Your task to perform on an android device: Show me popular games on the Play Store Image 0: 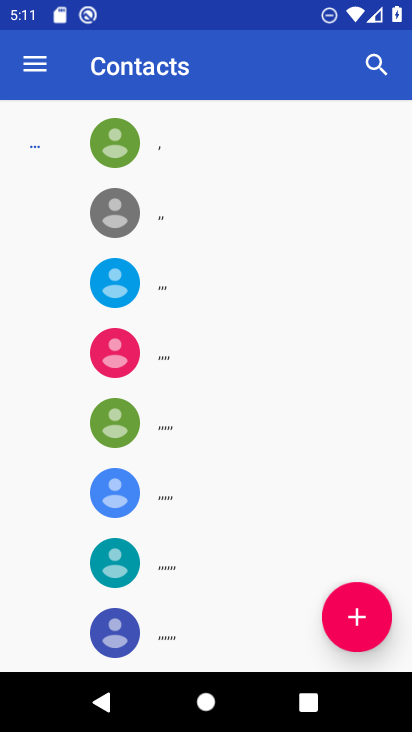
Step 0: press home button
Your task to perform on an android device: Show me popular games on the Play Store Image 1: 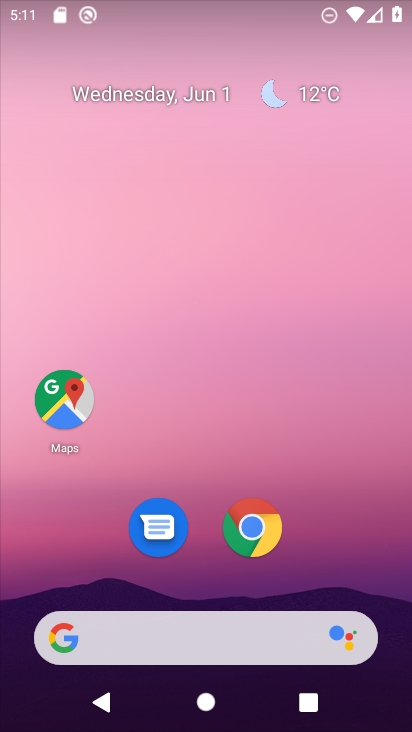
Step 1: drag from (184, 565) to (261, 5)
Your task to perform on an android device: Show me popular games on the Play Store Image 2: 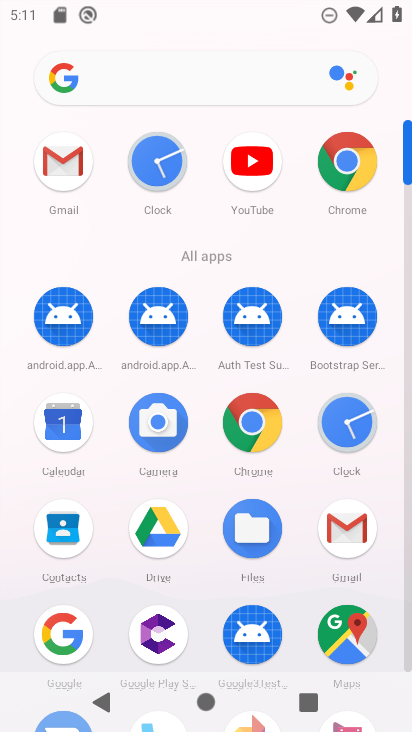
Step 2: drag from (198, 658) to (244, 269)
Your task to perform on an android device: Show me popular games on the Play Store Image 3: 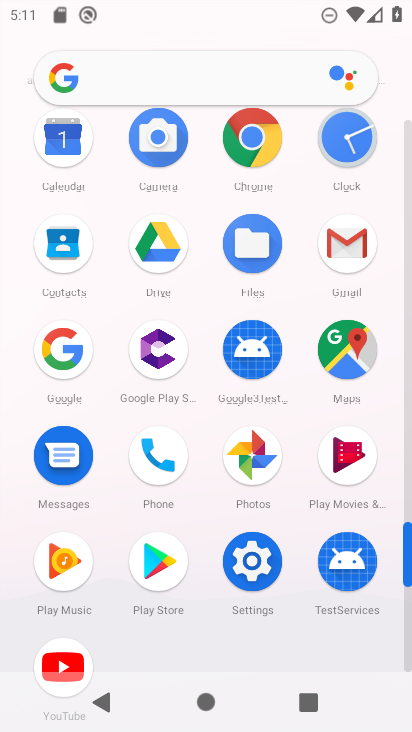
Step 3: click (166, 546)
Your task to perform on an android device: Show me popular games on the Play Store Image 4: 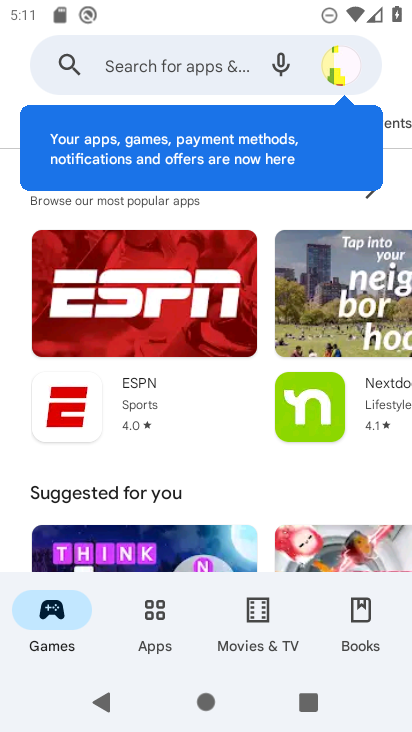
Step 4: click (5, 464)
Your task to perform on an android device: Show me popular games on the Play Store Image 5: 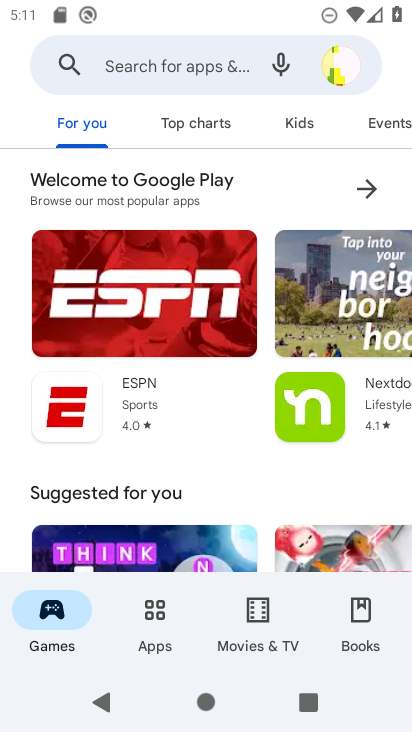
Step 5: click (183, 133)
Your task to perform on an android device: Show me popular games on the Play Store Image 6: 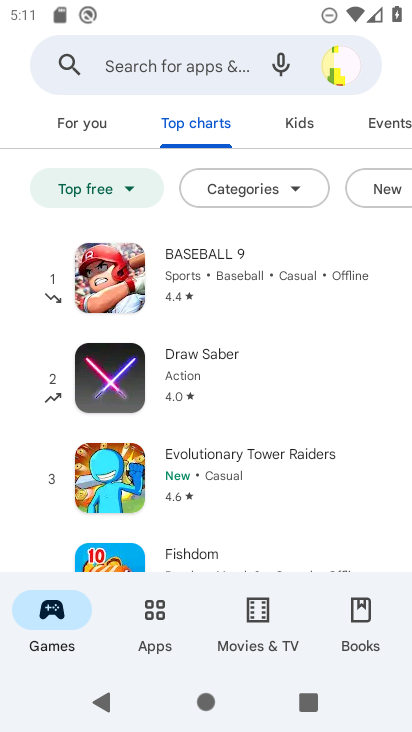
Step 6: task complete